Your task to perform on an android device: turn on location history Image 0: 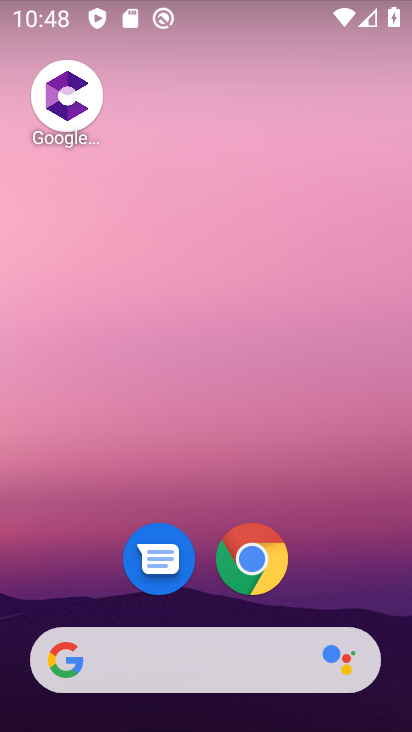
Step 0: drag from (385, 614) to (362, 139)
Your task to perform on an android device: turn on location history Image 1: 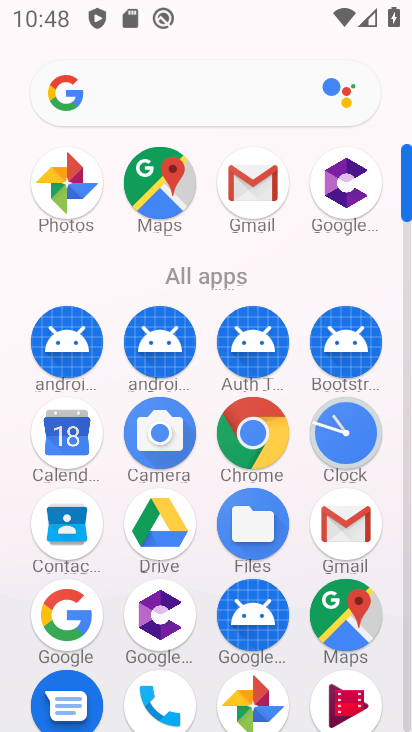
Step 1: click (359, 582)
Your task to perform on an android device: turn on location history Image 2: 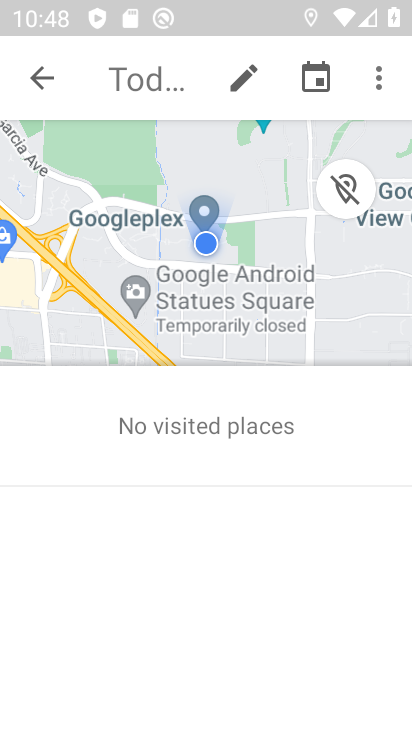
Step 2: click (45, 68)
Your task to perform on an android device: turn on location history Image 3: 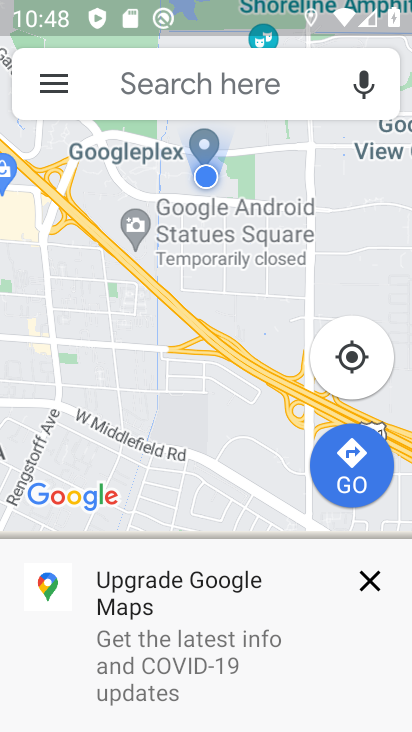
Step 3: click (362, 579)
Your task to perform on an android device: turn on location history Image 4: 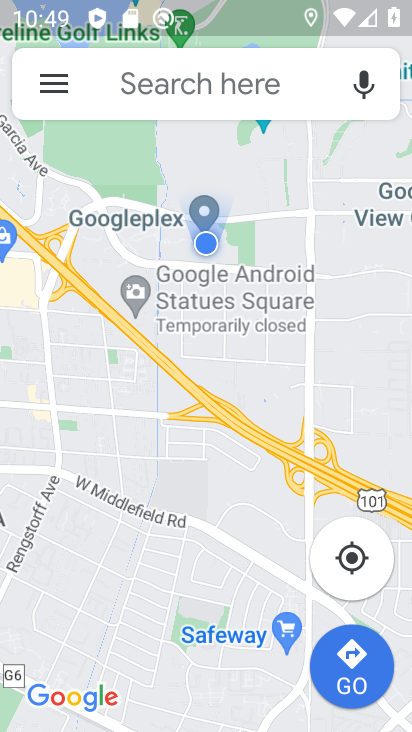
Step 4: click (61, 96)
Your task to perform on an android device: turn on location history Image 5: 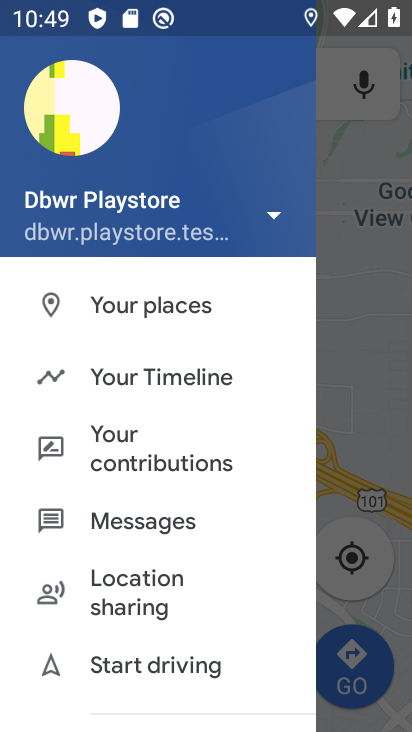
Step 5: click (180, 390)
Your task to perform on an android device: turn on location history Image 6: 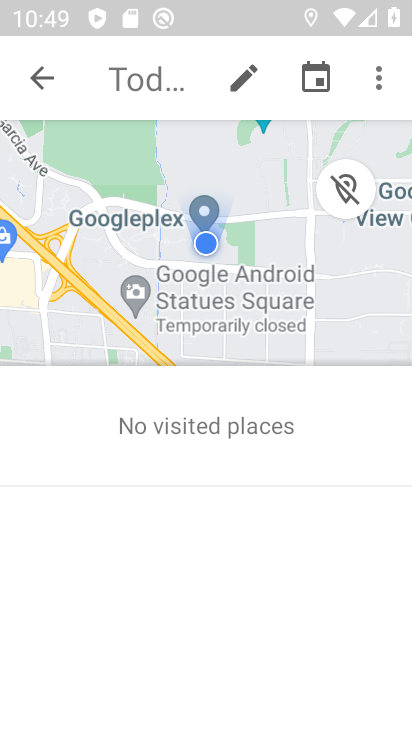
Step 6: click (369, 97)
Your task to perform on an android device: turn on location history Image 7: 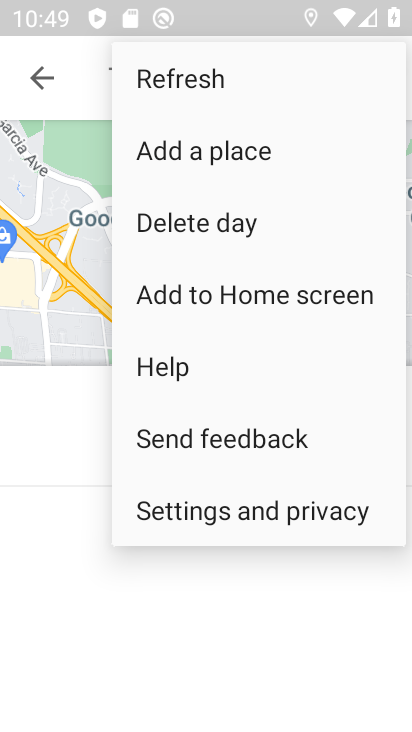
Step 7: click (337, 496)
Your task to perform on an android device: turn on location history Image 8: 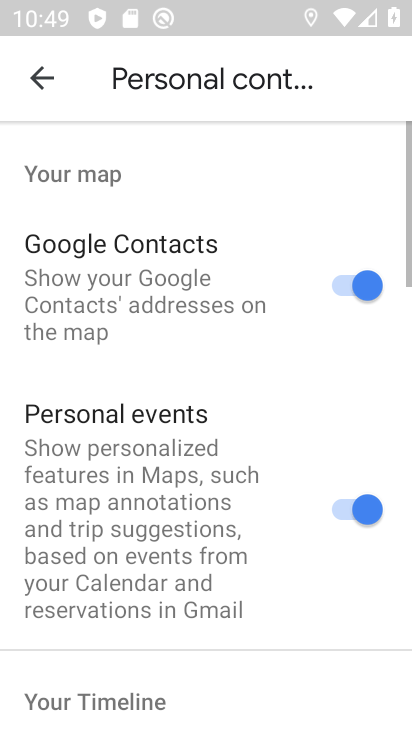
Step 8: drag from (312, 614) to (305, 138)
Your task to perform on an android device: turn on location history Image 9: 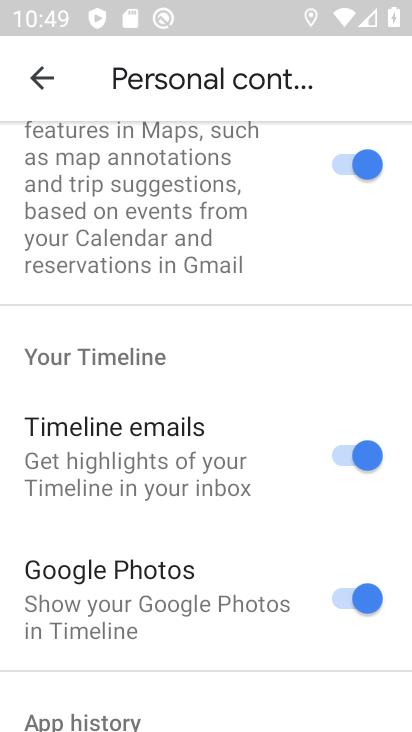
Step 9: drag from (333, 660) to (278, 216)
Your task to perform on an android device: turn on location history Image 10: 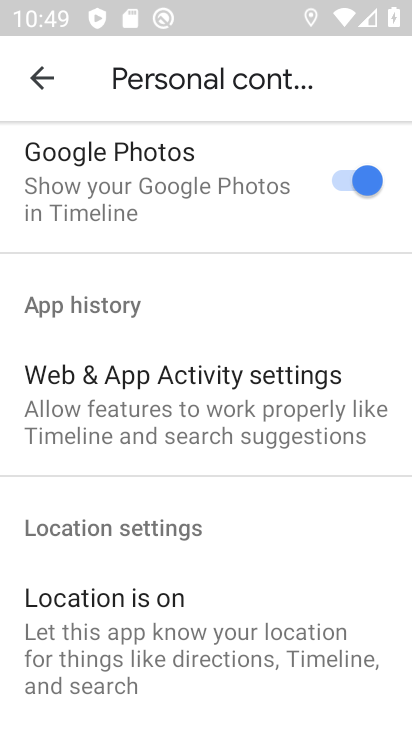
Step 10: drag from (266, 585) to (225, 332)
Your task to perform on an android device: turn on location history Image 11: 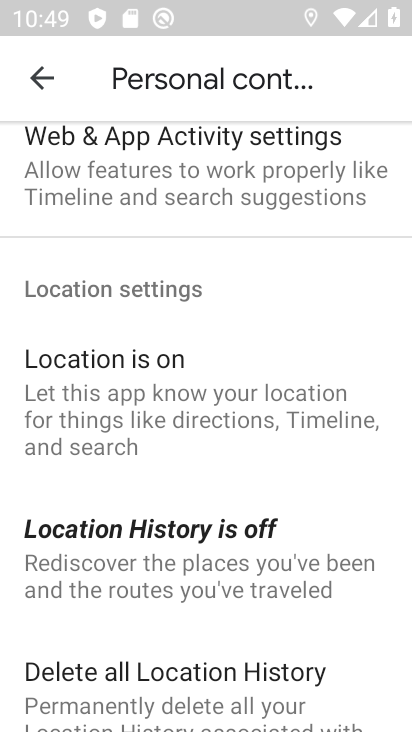
Step 11: click (284, 516)
Your task to perform on an android device: turn on location history Image 12: 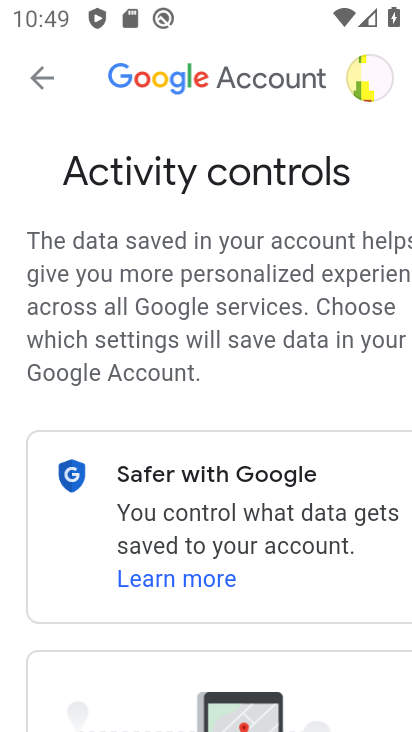
Step 12: task complete